Your task to perform on an android device: turn pop-ups off in chrome Image 0: 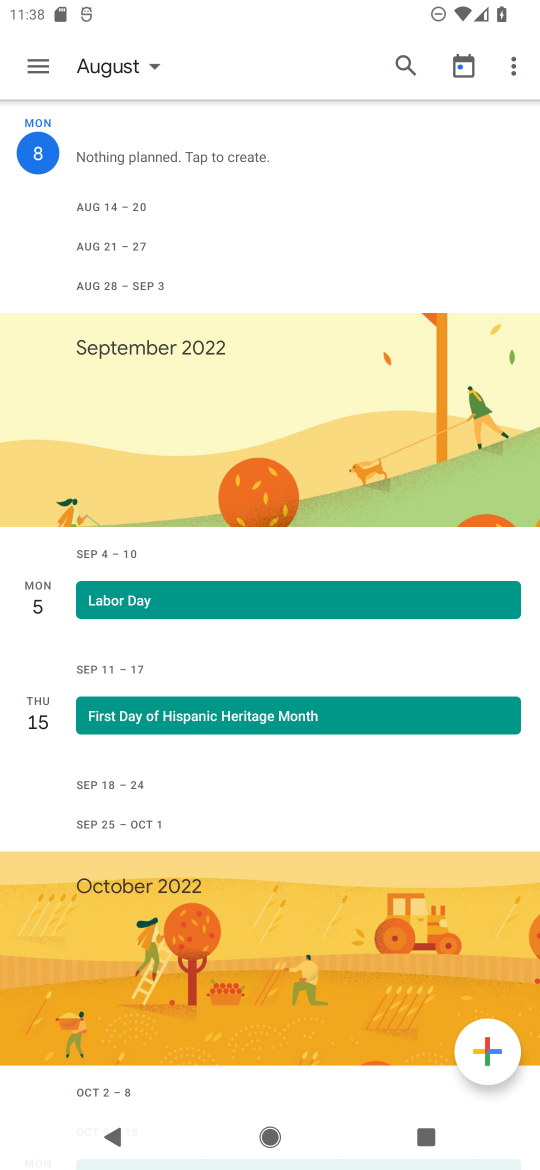
Step 0: press home button
Your task to perform on an android device: turn pop-ups off in chrome Image 1: 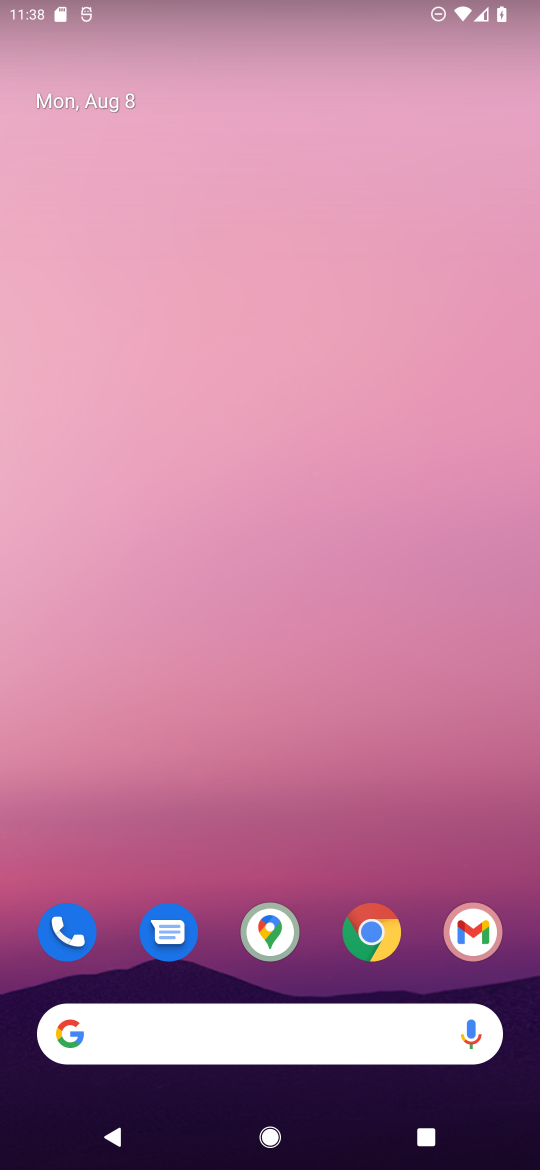
Step 1: click (378, 921)
Your task to perform on an android device: turn pop-ups off in chrome Image 2: 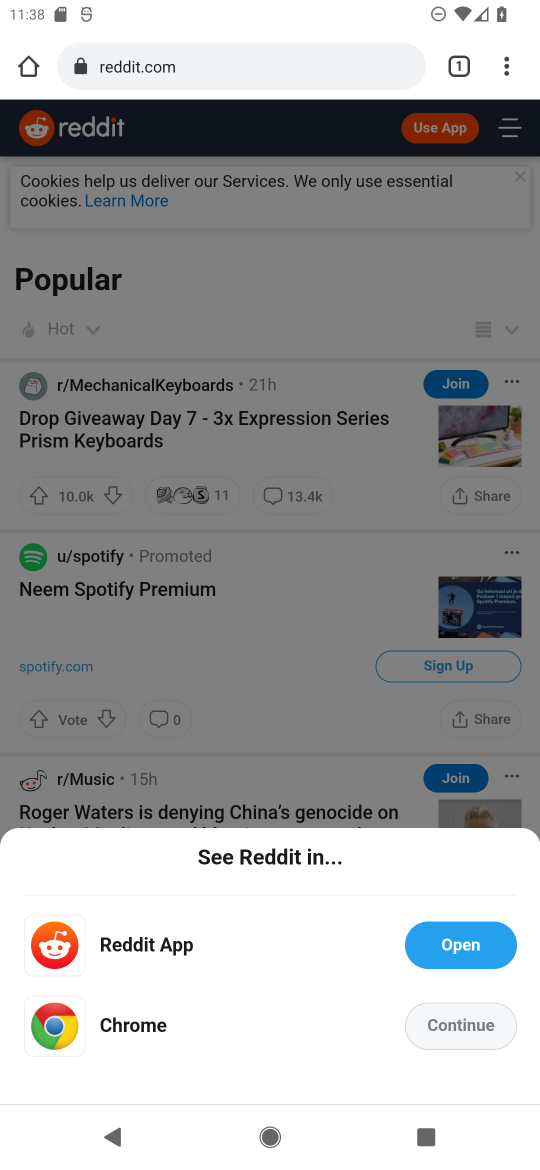
Step 2: click (518, 62)
Your task to perform on an android device: turn pop-ups off in chrome Image 3: 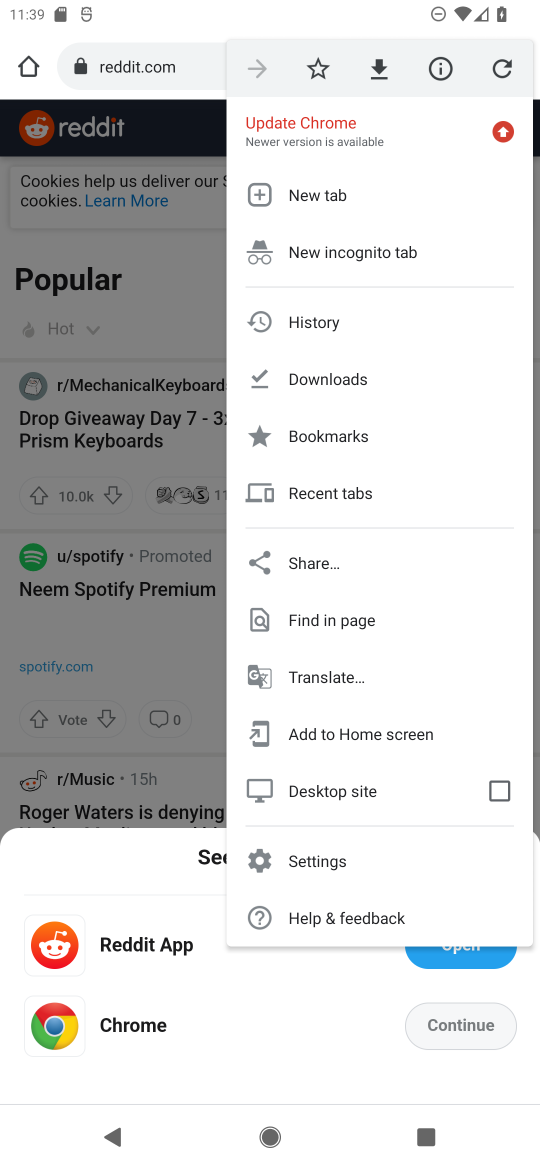
Step 3: click (308, 870)
Your task to perform on an android device: turn pop-ups off in chrome Image 4: 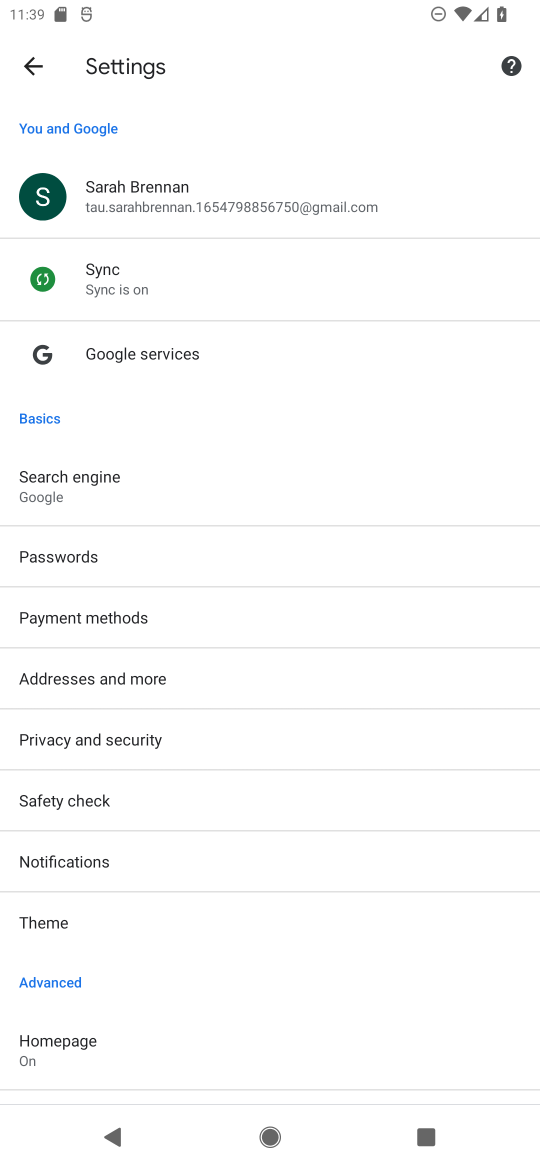
Step 4: drag from (144, 831) to (187, 299)
Your task to perform on an android device: turn pop-ups off in chrome Image 5: 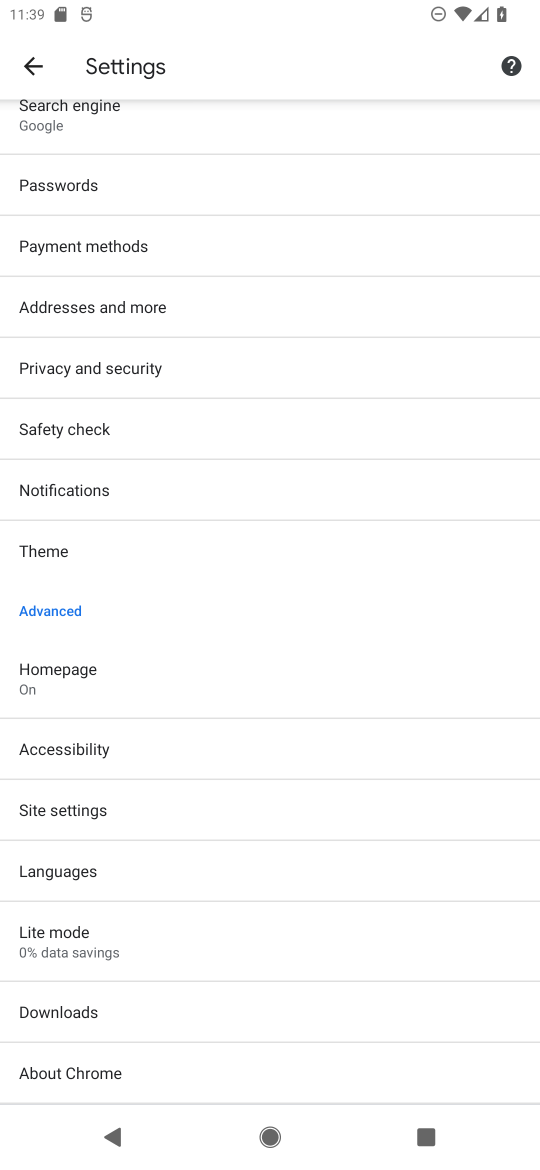
Step 5: click (143, 805)
Your task to perform on an android device: turn pop-ups off in chrome Image 6: 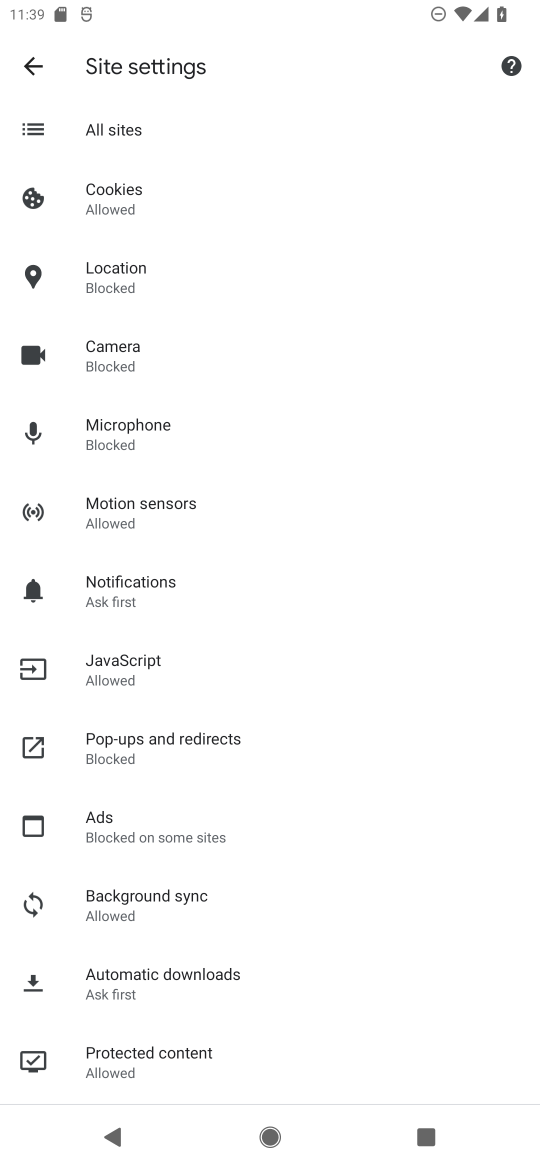
Step 6: drag from (117, 603) to (123, 836)
Your task to perform on an android device: turn pop-ups off in chrome Image 7: 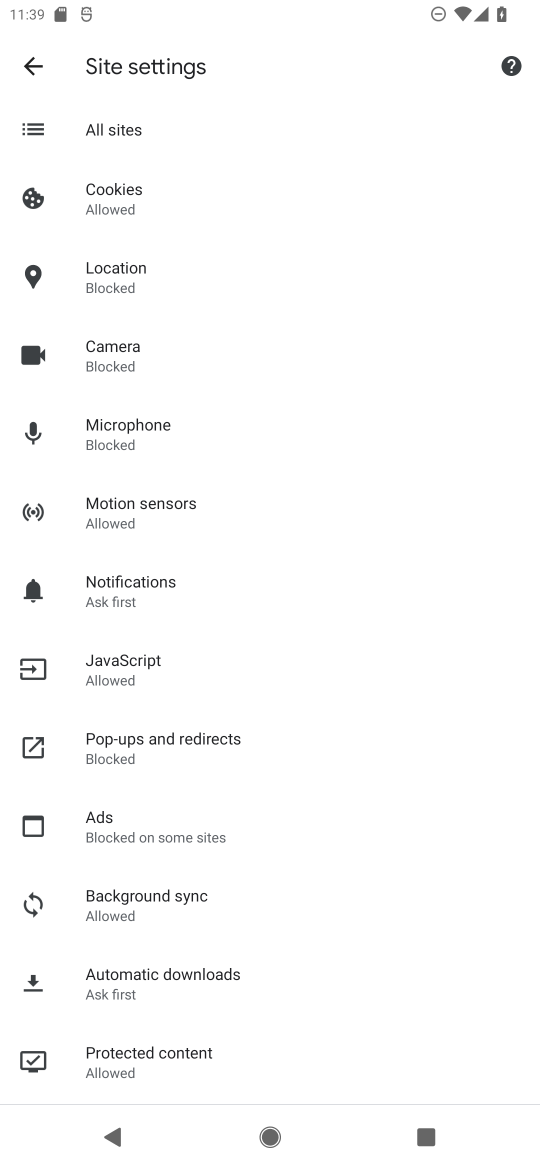
Step 7: click (154, 739)
Your task to perform on an android device: turn pop-ups off in chrome Image 8: 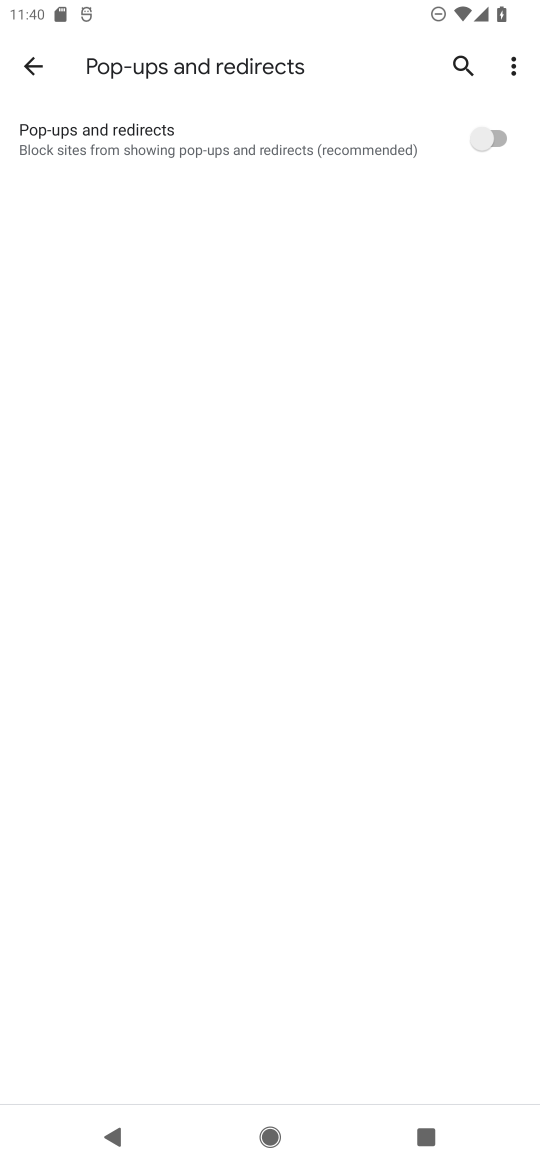
Step 8: task complete